Your task to perform on an android device: Open the map Image 0: 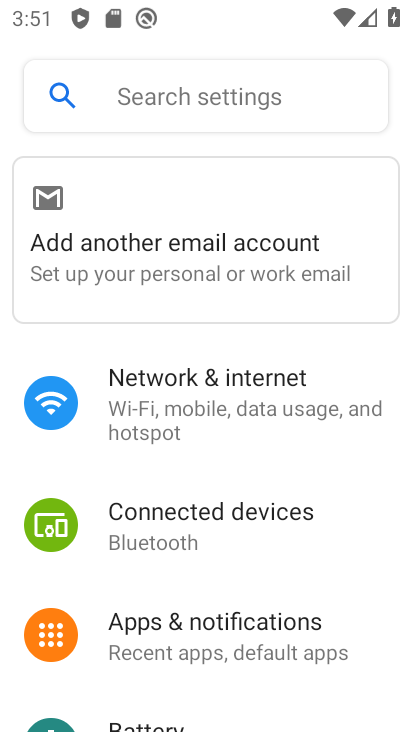
Step 0: press back button
Your task to perform on an android device: Open the map Image 1: 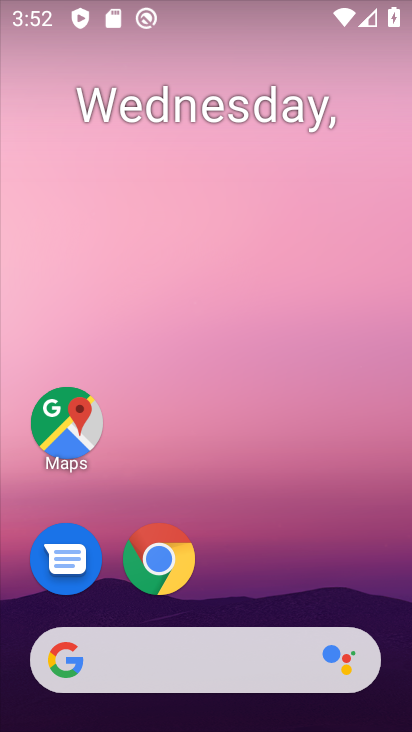
Step 1: click (67, 421)
Your task to perform on an android device: Open the map Image 2: 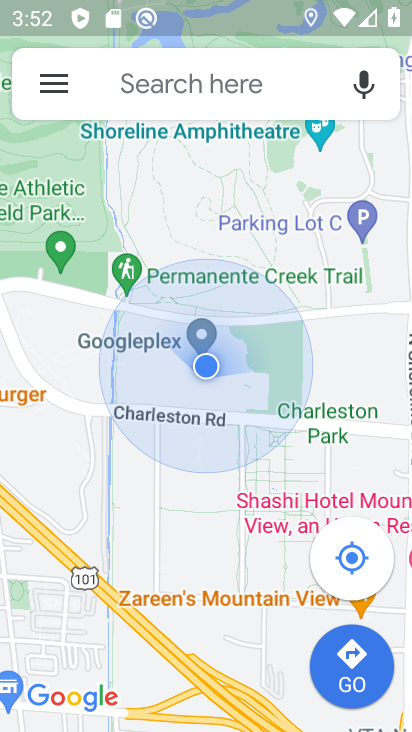
Step 2: task complete